Your task to perform on an android device: Add "logitech g pro" to the cart on amazon.com Image 0: 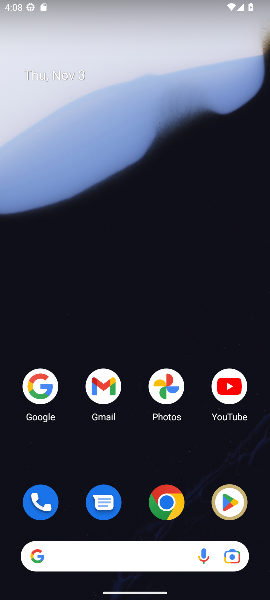
Step 0: click (169, 503)
Your task to perform on an android device: Add "logitech g pro" to the cart on amazon.com Image 1: 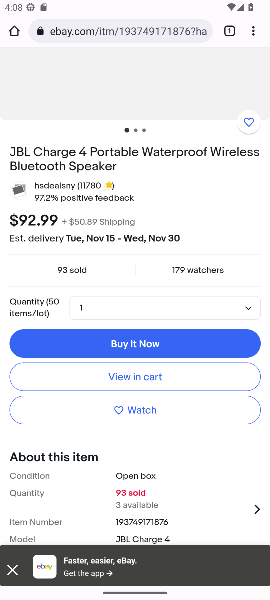
Step 1: click (17, 28)
Your task to perform on an android device: Add "logitech g pro" to the cart on amazon.com Image 2: 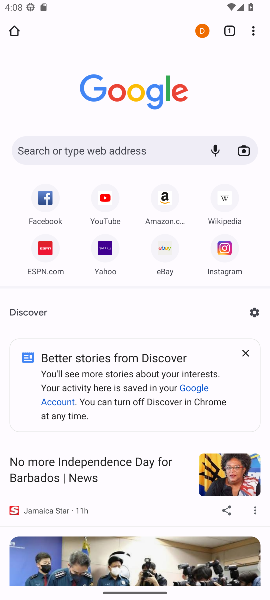
Step 2: click (170, 206)
Your task to perform on an android device: Add "logitech g pro" to the cart on amazon.com Image 3: 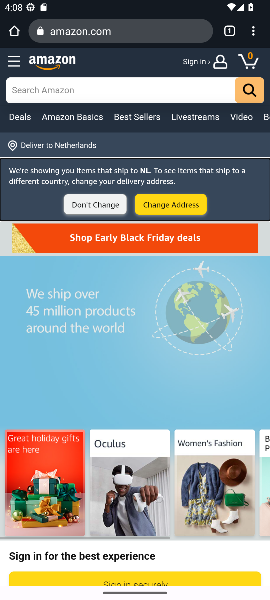
Step 3: click (78, 85)
Your task to perform on an android device: Add "logitech g pro" to the cart on amazon.com Image 4: 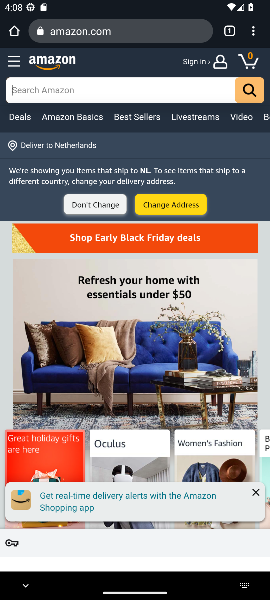
Step 4: type "logitech g pro"
Your task to perform on an android device: Add "logitech g pro" to the cart on amazon.com Image 5: 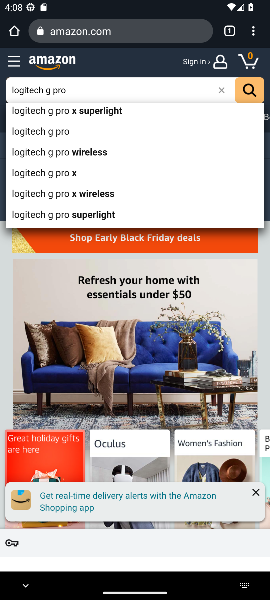
Step 5: click (56, 129)
Your task to perform on an android device: Add "logitech g pro" to the cart on amazon.com Image 6: 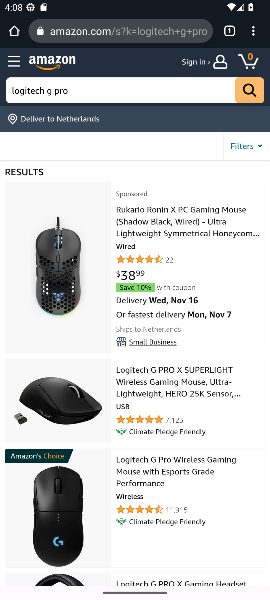
Step 6: click (143, 227)
Your task to perform on an android device: Add "logitech g pro" to the cart on amazon.com Image 7: 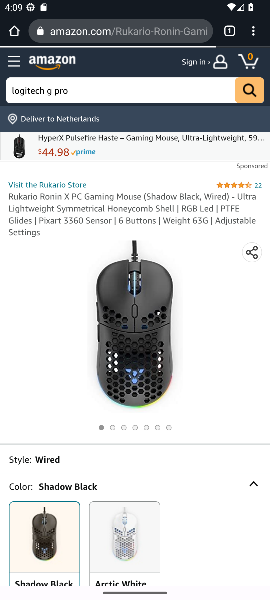
Step 7: drag from (205, 388) to (184, 201)
Your task to perform on an android device: Add "logitech g pro" to the cart on amazon.com Image 8: 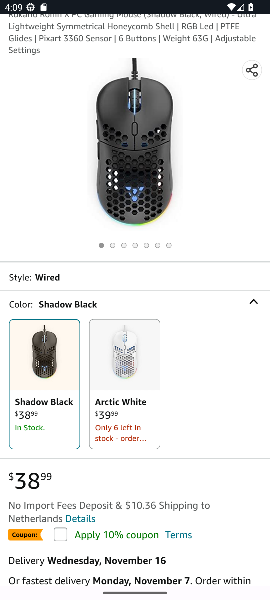
Step 8: drag from (186, 433) to (186, 215)
Your task to perform on an android device: Add "logitech g pro" to the cart on amazon.com Image 9: 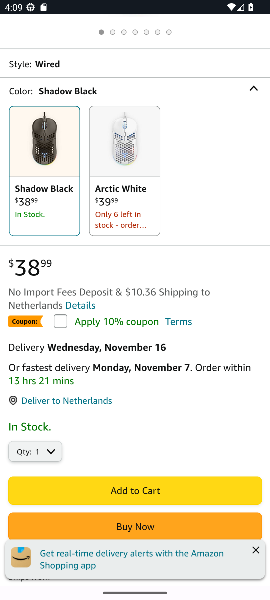
Step 9: click (130, 487)
Your task to perform on an android device: Add "logitech g pro" to the cart on amazon.com Image 10: 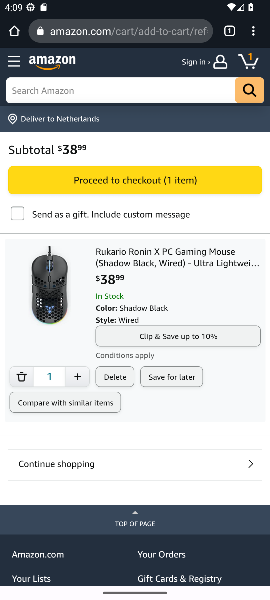
Step 10: task complete